Your task to perform on an android device: toggle priority inbox in the gmail app Image 0: 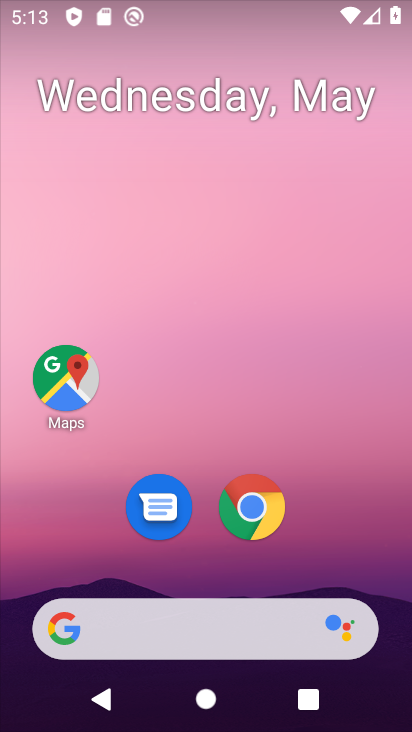
Step 0: drag from (333, 532) to (302, 108)
Your task to perform on an android device: toggle priority inbox in the gmail app Image 1: 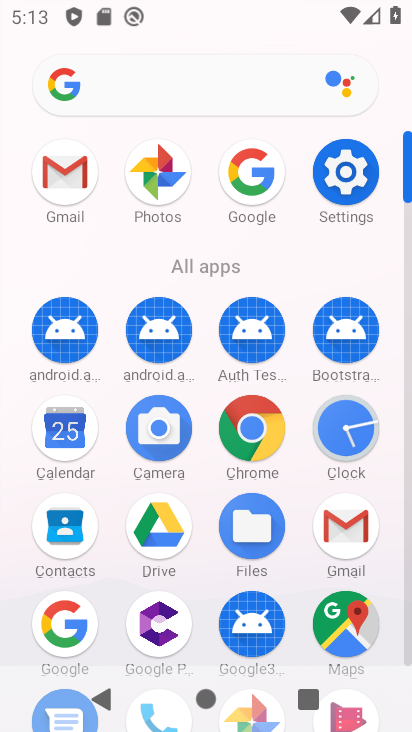
Step 1: click (63, 164)
Your task to perform on an android device: toggle priority inbox in the gmail app Image 2: 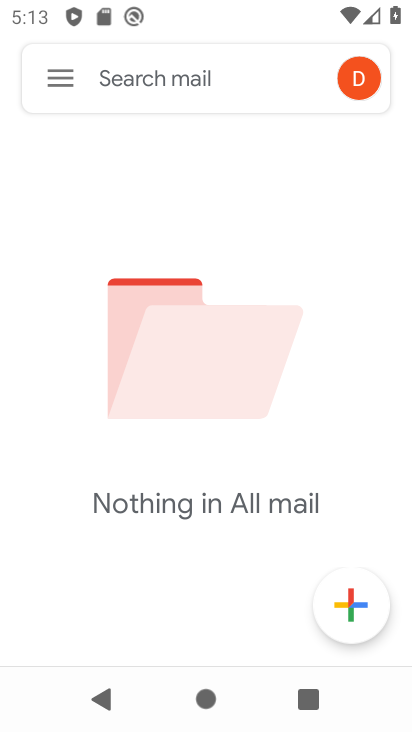
Step 2: click (63, 81)
Your task to perform on an android device: toggle priority inbox in the gmail app Image 3: 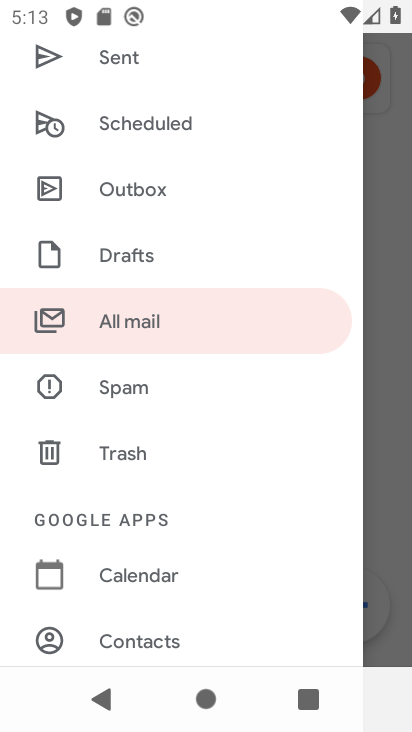
Step 3: drag from (167, 495) to (213, 396)
Your task to perform on an android device: toggle priority inbox in the gmail app Image 4: 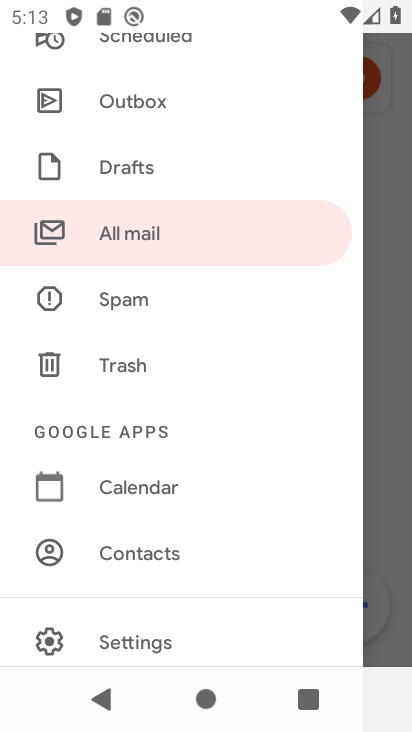
Step 4: drag from (142, 518) to (221, 415)
Your task to perform on an android device: toggle priority inbox in the gmail app Image 5: 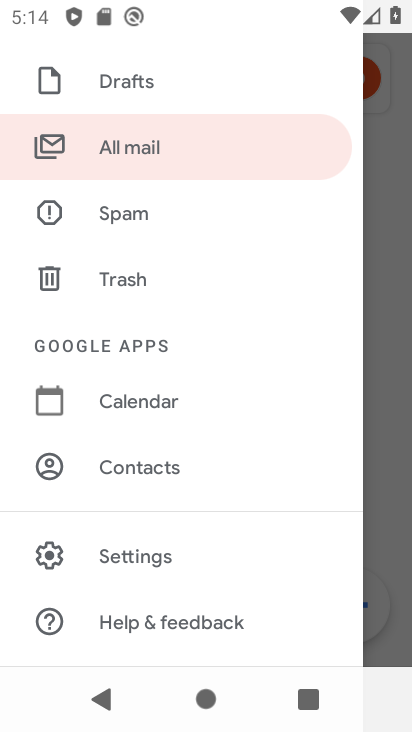
Step 5: click (149, 566)
Your task to perform on an android device: toggle priority inbox in the gmail app Image 6: 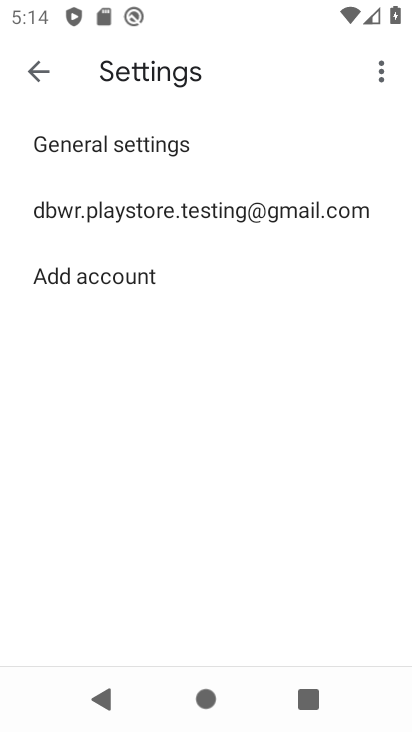
Step 6: click (179, 208)
Your task to perform on an android device: toggle priority inbox in the gmail app Image 7: 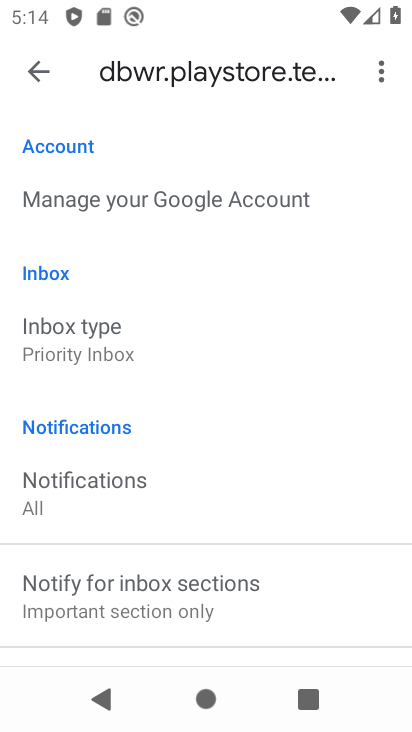
Step 7: click (122, 342)
Your task to perform on an android device: toggle priority inbox in the gmail app Image 8: 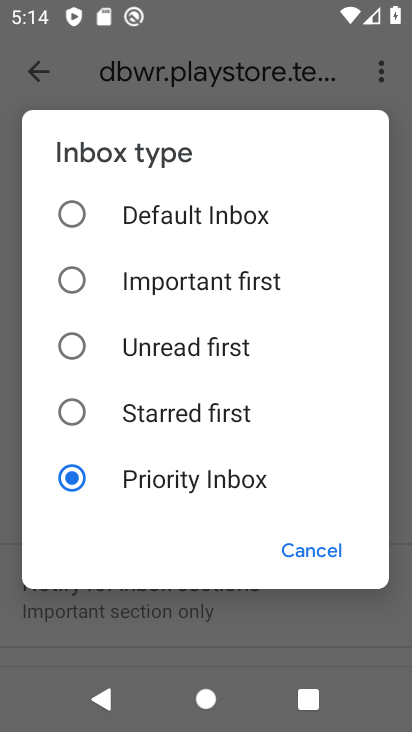
Step 8: click (82, 210)
Your task to perform on an android device: toggle priority inbox in the gmail app Image 9: 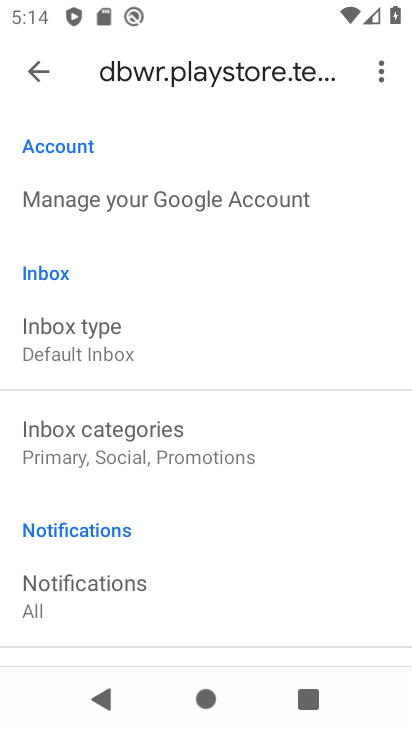
Step 9: task complete